Your task to perform on an android device: Open the map Image 0: 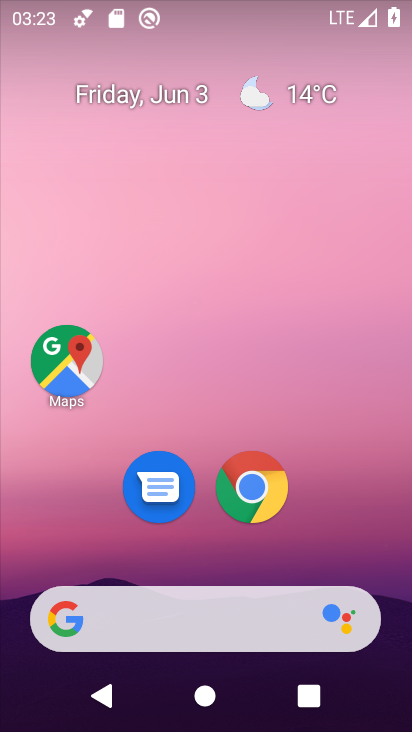
Step 0: click (73, 368)
Your task to perform on an android device: Open the map Image 1: 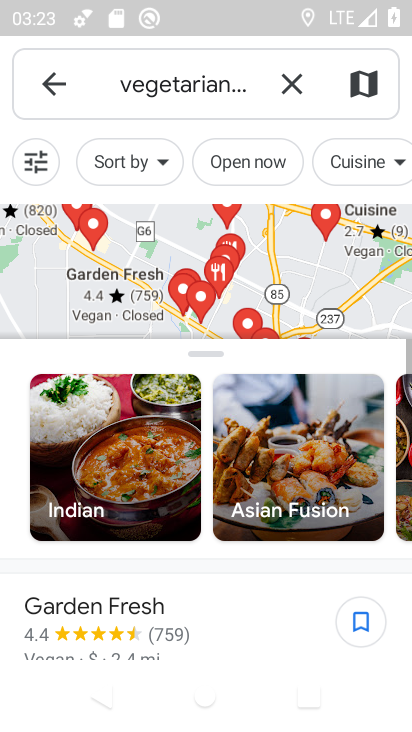
Step 1: task complete